Your task to perform on an android device: Open Chrome and go to settings Image 0: 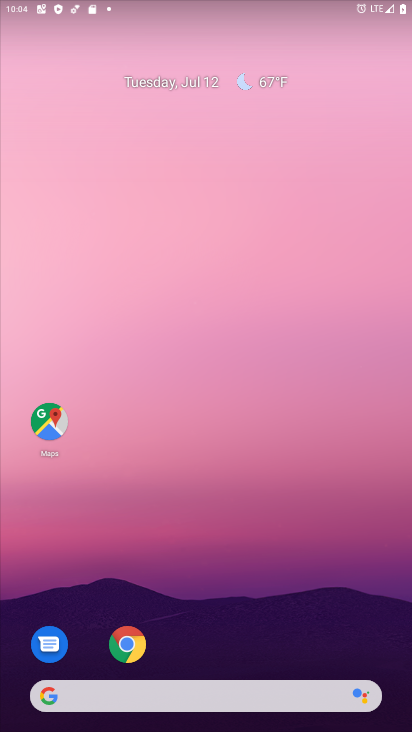
Step 0: click (191, 175)
Your task to perform on an android device: Open Chrome and go to settings Image 1: 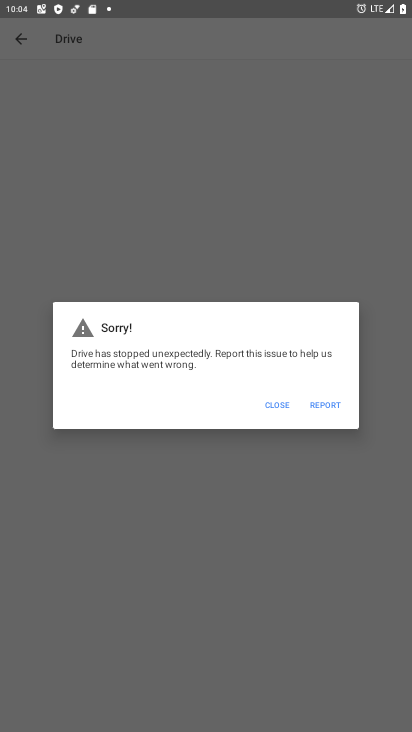
Step 1: press home button
Your task to perform on an android device: Open Chrome and go to settings Image 2: 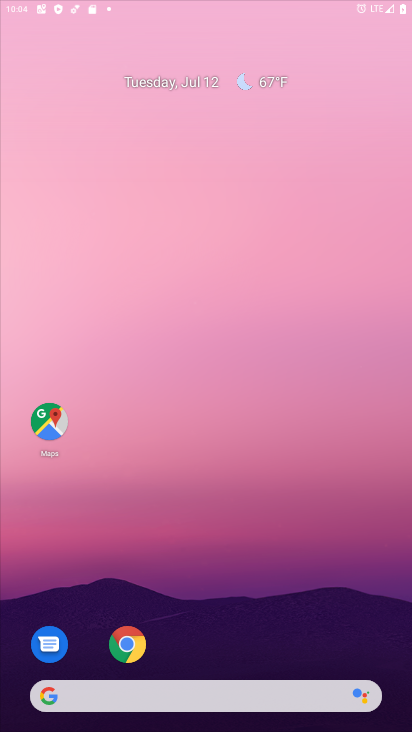
Step 2: drag from (190, 590) to (257, 186)
Your task to perform on an android device: Open Chrome and go to settings Image 3: 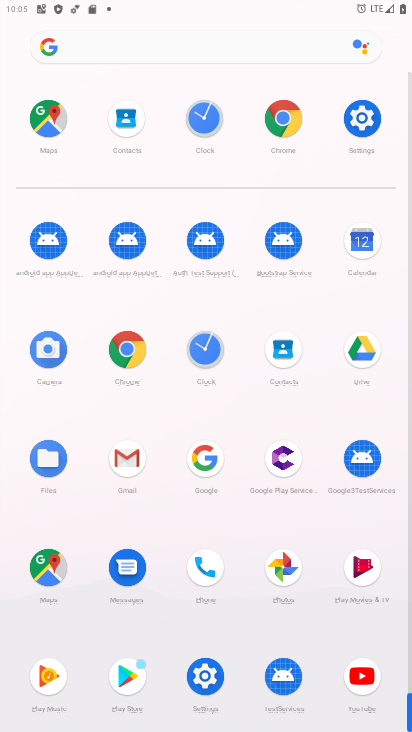
Step 3: click (205, 673)
Your task to perform on an android device: Open Chrome and go to settings Image 4: 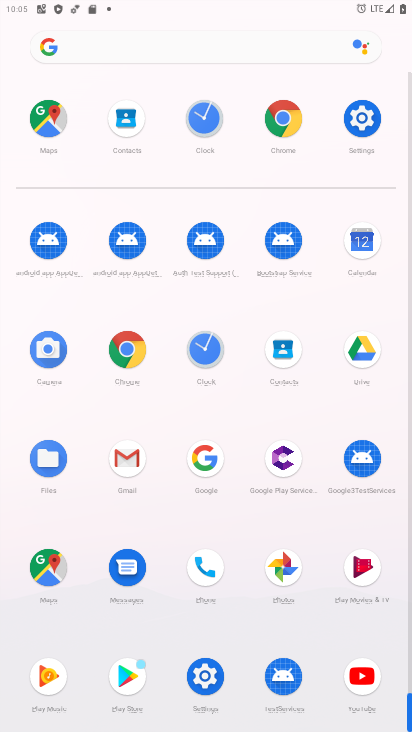
Step 4: click (205, 673)
Your task to perform on an android device: Open Chrome and go to settings Image 5: 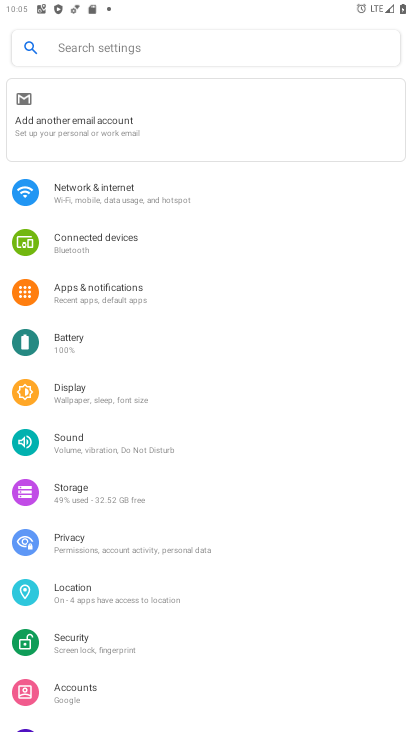
Step 5: drag from (150, 604) to (247, 12)
Your task to perform on an android device: Open Chrome and go to settings Image 6: 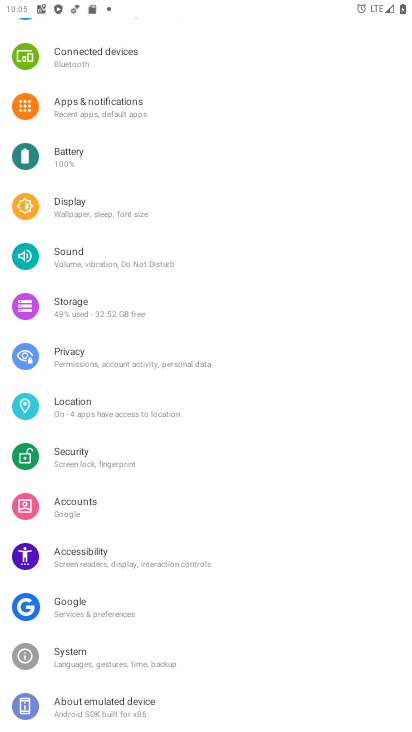
Step 6: press home button
Your task to perform on an android device: Open Chrome and go to settings Image 7: 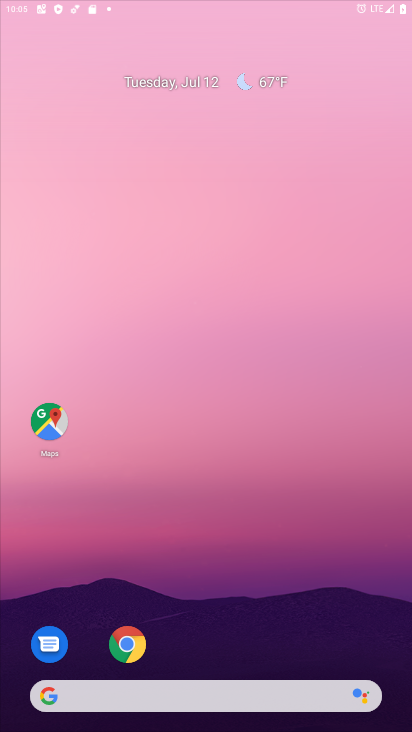
Step 7: drag from (168, 575) to (254, 193)
Your task to perform on an android device: Open Chrome and go to settings Image 8: 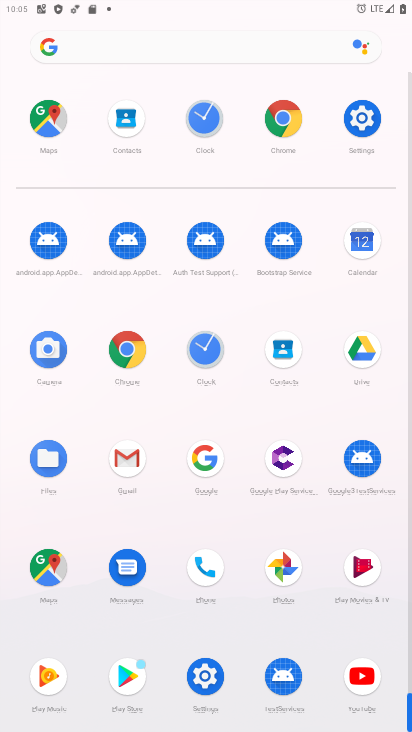
Step 8: click (281, 120)
Your task to perform on an android device: Open Chrome and go to settings Image 9: 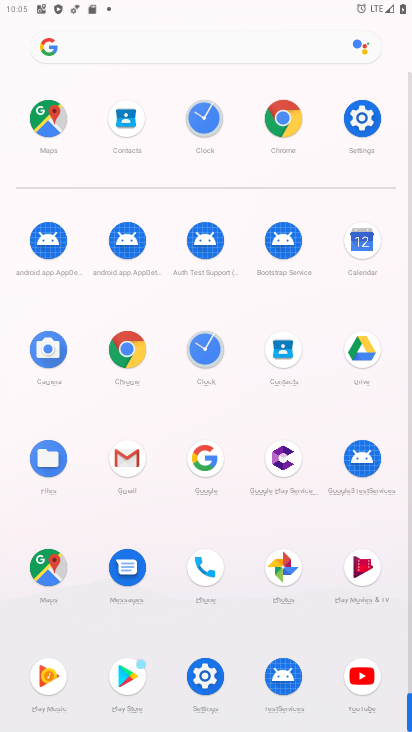
Step 9: click (281, 120)
Your task to perform on an android device: Open Chrome and go to settings Image 10: 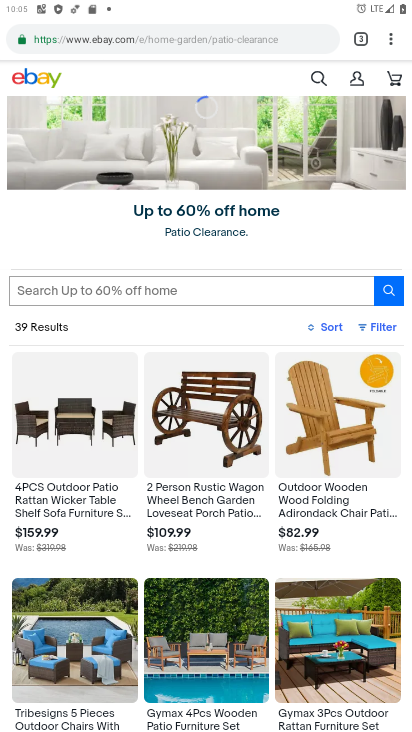
Step 10: task complete